Your task to perform on an android device: open a new tab in the chrome app Image 0: 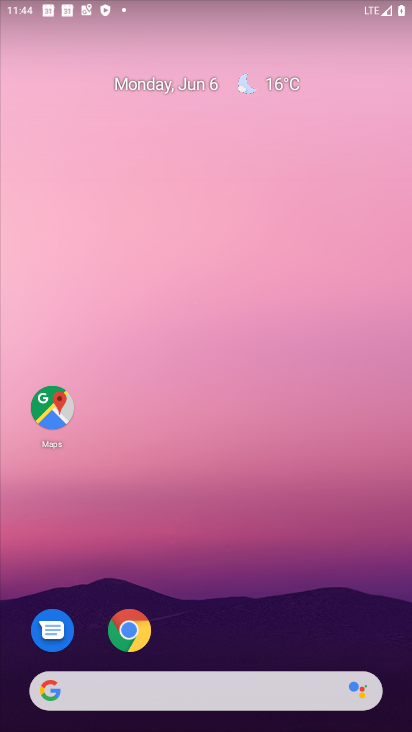
Step 0: click (139, 628)
Your task to perform on an android device: open a new tab in the chrome app Image 1: 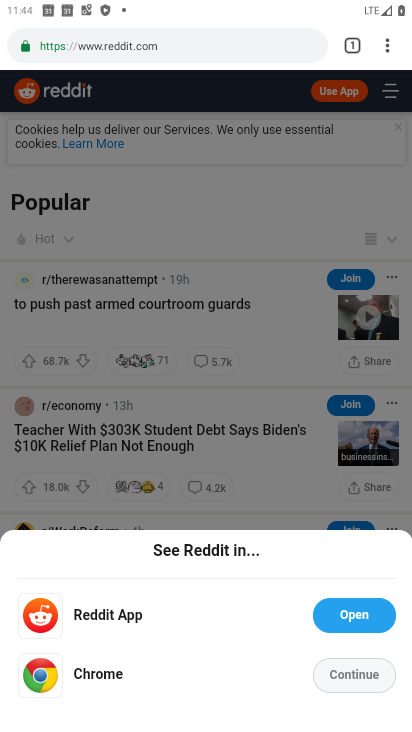
Step 1: click (351, 43)
Your task to perform on an android device: open a new tab in the chrome app Image 2: 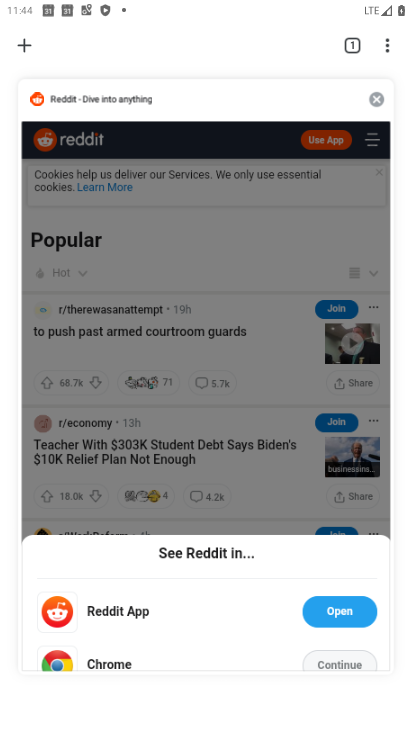
Step 2: click (23, 45)
Your task to perform on an android device: open a new tab in the chrome app Image 3: 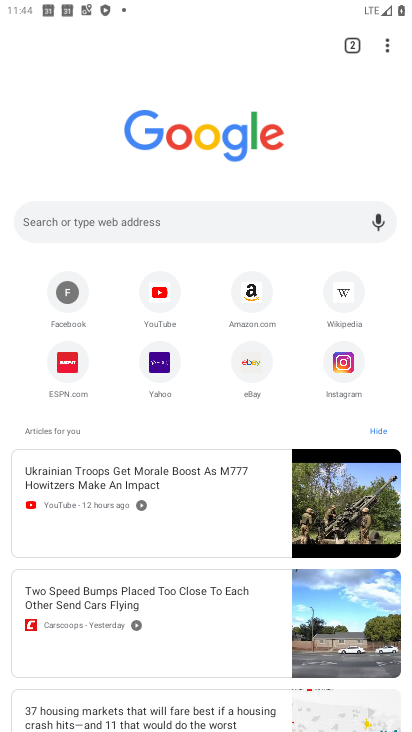
Step 3: click (381, 46)
Your task to perform on an android device: open a new tab in the chrome app Image 4: 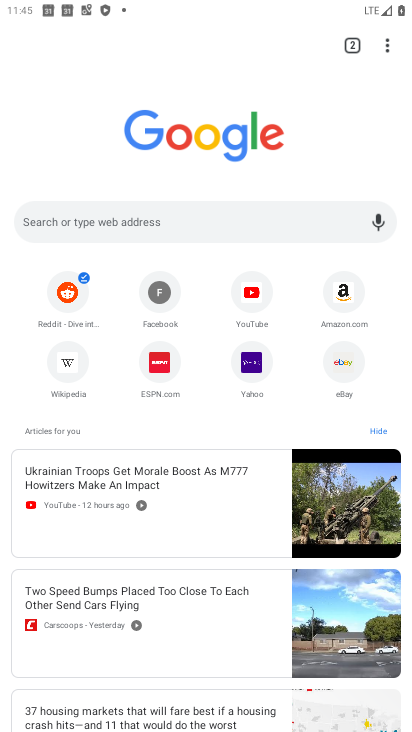
Step 4: task complete